Your task to perform on an android device: turn off sleep mode Image 0: 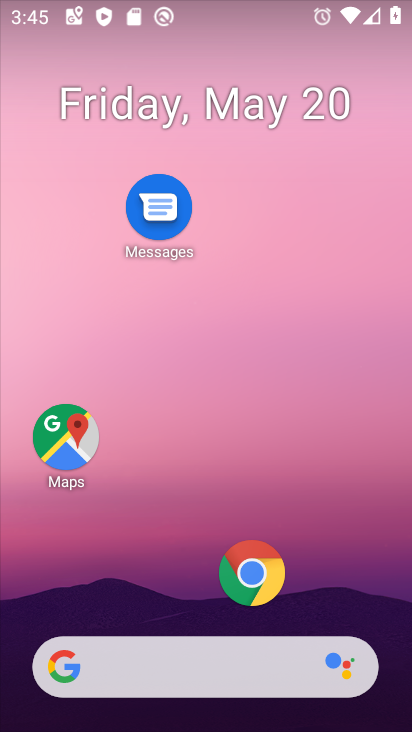
Step 0: drag from (228, 622) to (204, 0)
Your task to perform on an android device: turn off sleep mode Image 1: 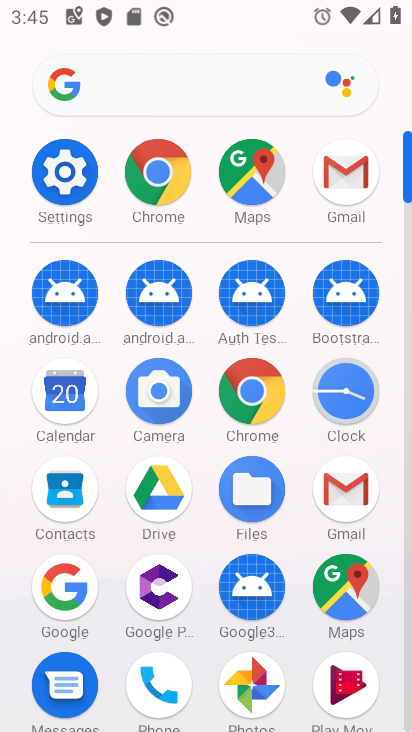
Step 1: click (86, 170)
Your task to perform on an android device: turn off sleep mode Image 2: 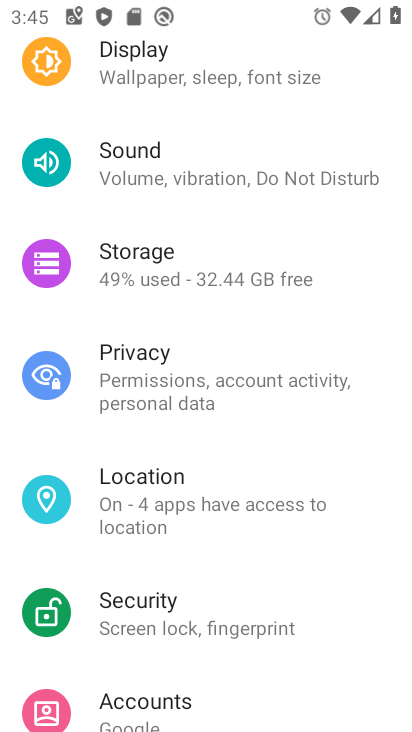
Step 2: task complete